Your task to perform on an android device: change notifications settings Image 0: 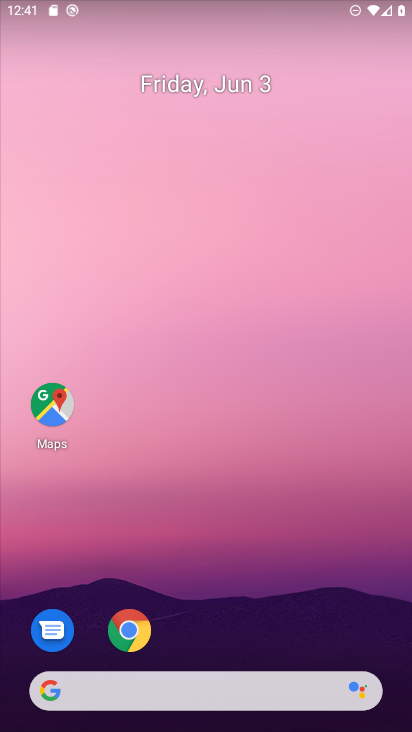
Step 0: drag from (199, 302) to (147, 75)
Your task to perform on an android device: change notifications settings Image 1: 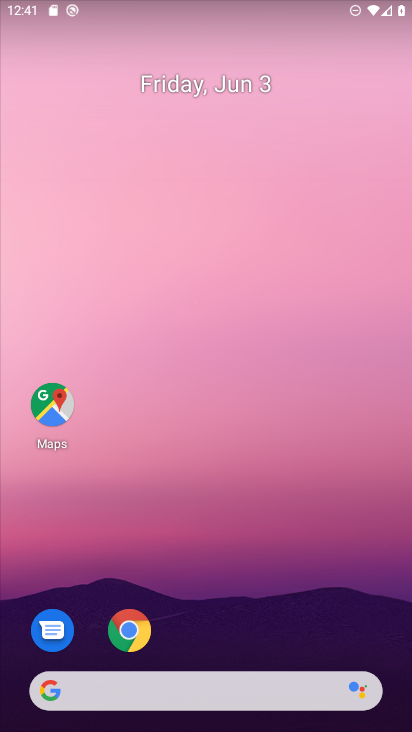
Step 1: drag from (259, 629) to (214, 100)
Your task to perform on an android device: change notifications settings Image 2: 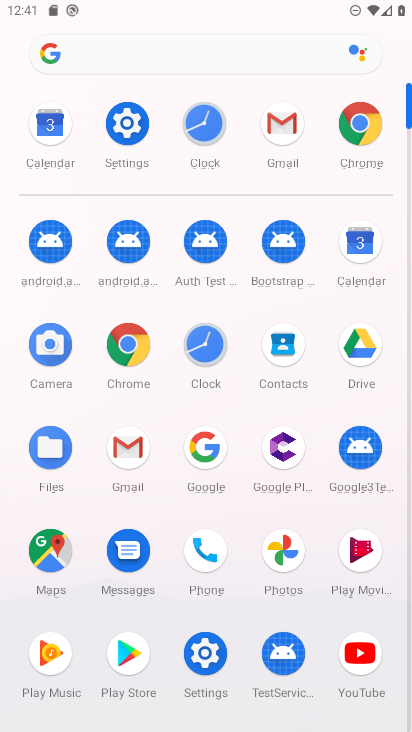
Step 2: click (126, 129)
Your task to perform on an android device: change notifications settings Image 3: 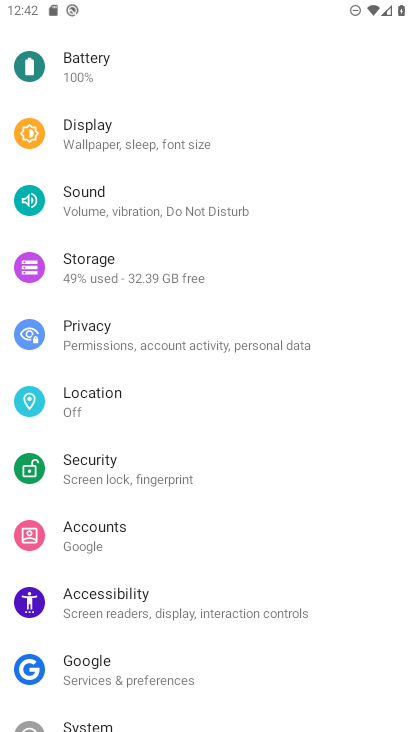
Step 3: drag from (198, 103) to (206, 347)
Your task to perform on an android device: change notifications settings Image 4: 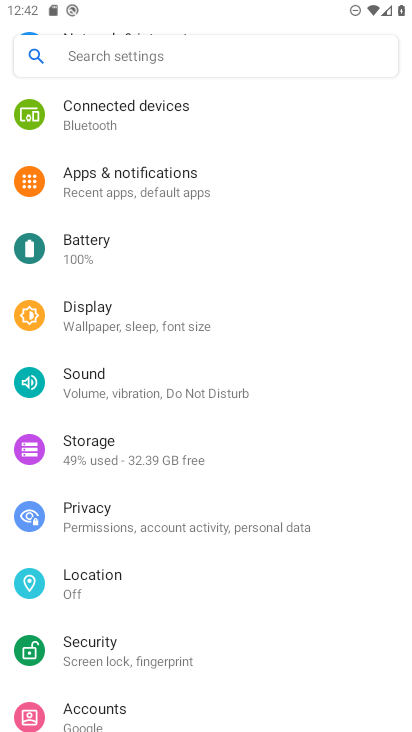
Step 4: drag from (177, 127) to (197, 465)
Your task to perform on an android device: change notifications settings Image 5: 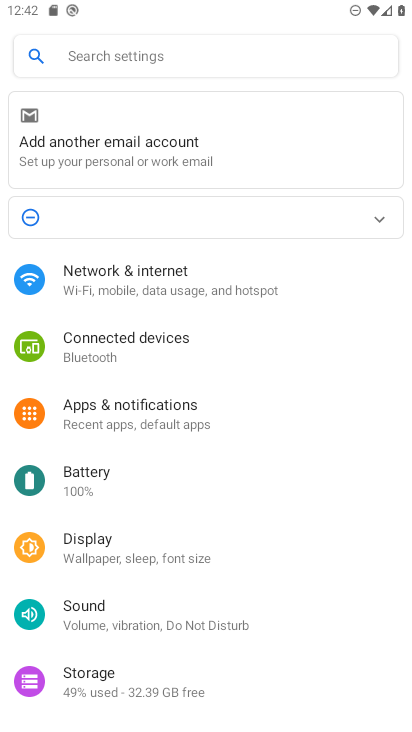
Step 5: click (171, 423)
Your task to perform on an android device: change notifications settings Image 6: 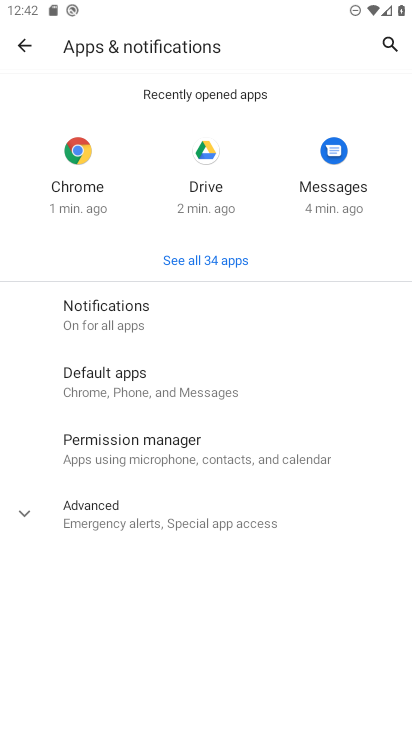
Step 6: click (162, 334)
Your task to perform on an android device: change notifications settings Image 7: 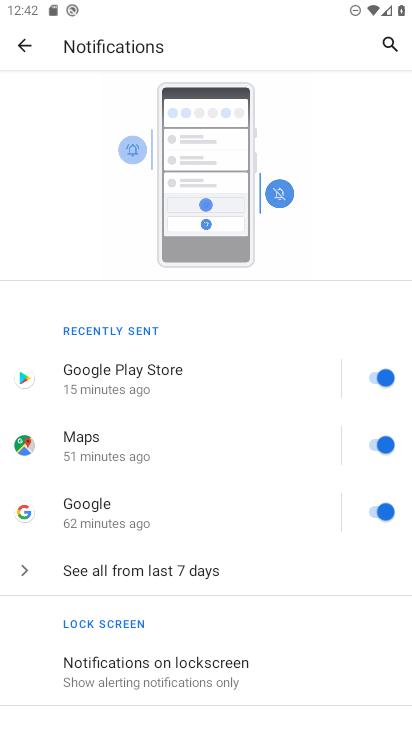
Step 7: drag from (271, 667) to (239, 409)
Your task to perform on an android device: change notifications settings Image 8: 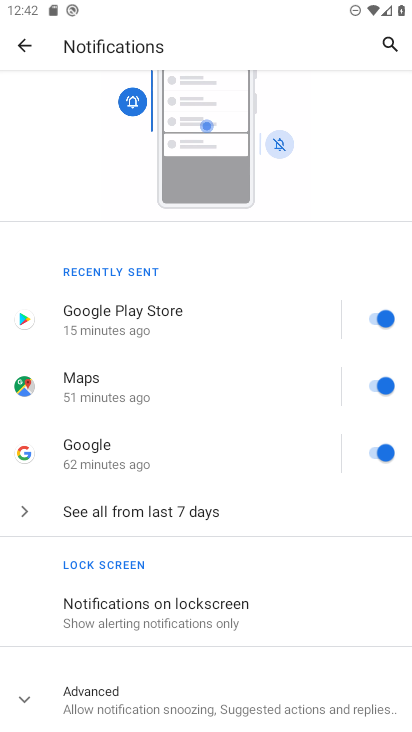
Step 8: drag from (311, 669) to (285, 331)
Your task to perform on an android device: change notifications settings Image 9: 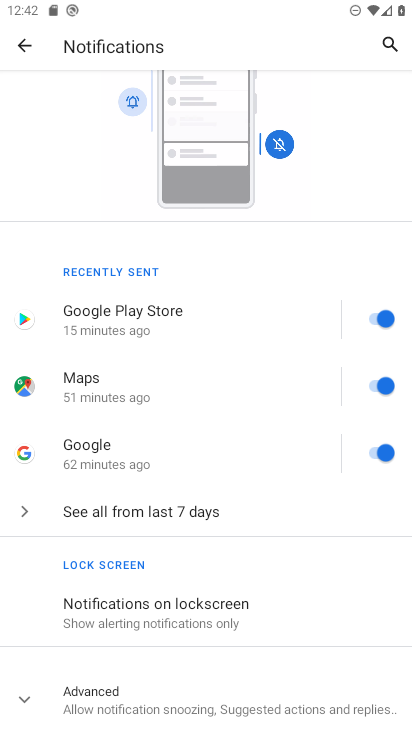
Step 9: click (303, 711)
Your task to perform on an android device: change notifications settings Image 10: 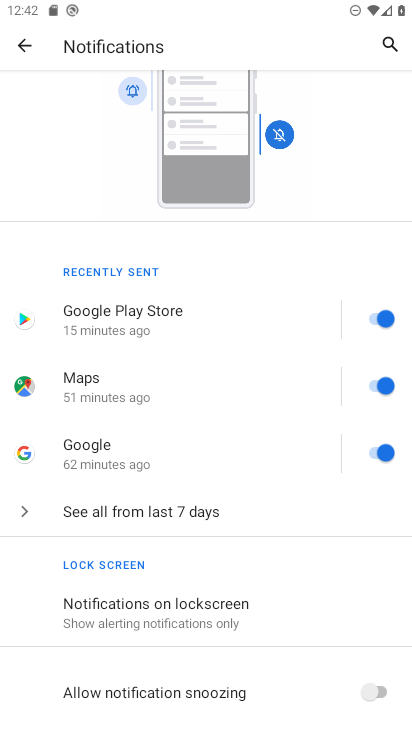
Step 10: drag from (303, 711) to (243, 420)
Your task to perform on an android device: change notifications settings Image 11: 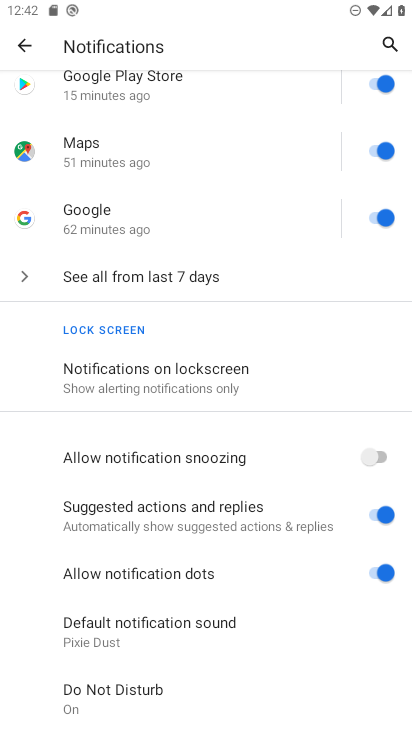
Step 11: click (384, 456)
Your task to perform on an android device: change notifications settings Image 12: 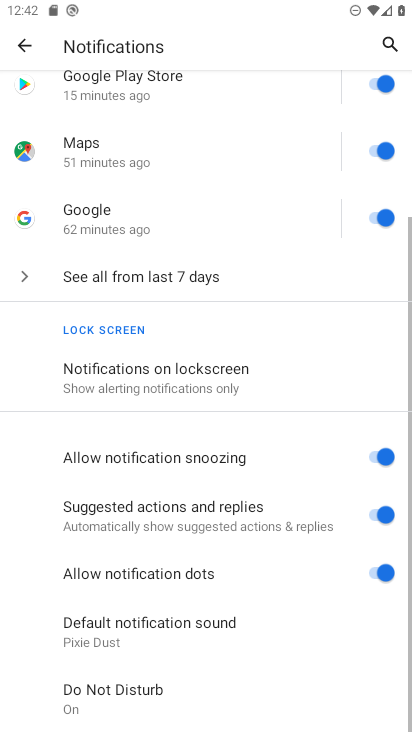
Step 12: click (384, 510)
Your task to perform on an android device: change notifications settings Image 13: 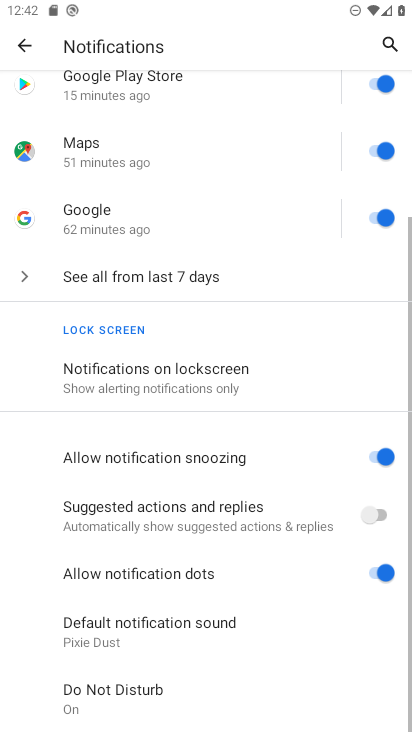
Step 13: click (380, 568)
Your task to perform on an android device: change notifications settings Image 14: 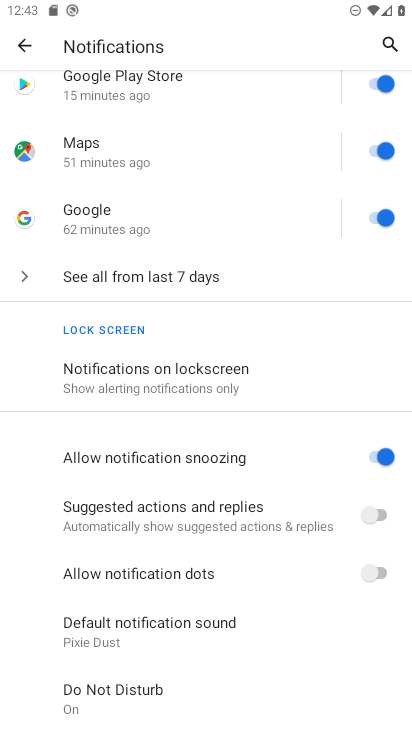
Step 14: task complete